Your task to perform on an android device: Go to Wikipedia Image 0: 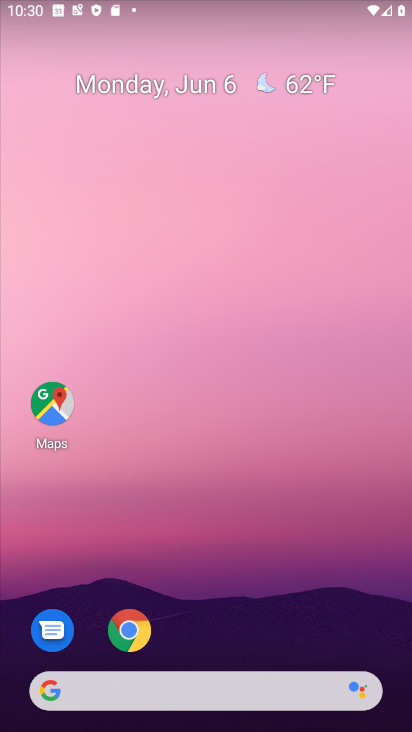
Step 0: drag from (369, 590) to (351, 83)
Your task to perform on an android device: Go to Wikipedia Image 1: 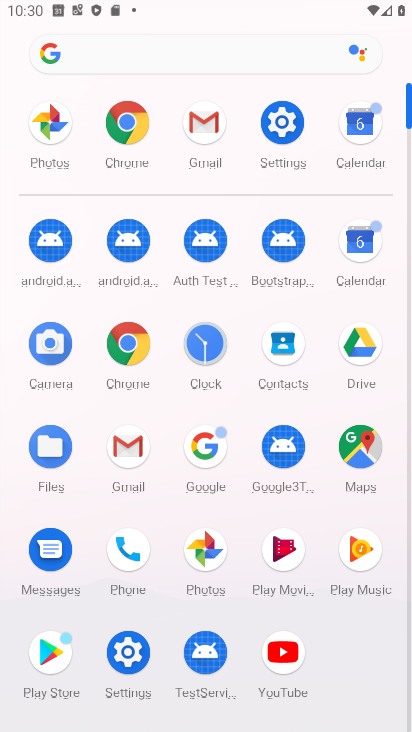
Step 1: click (137, 354)
Your task to perform on an android device: Go to Wikipedia Image 2: 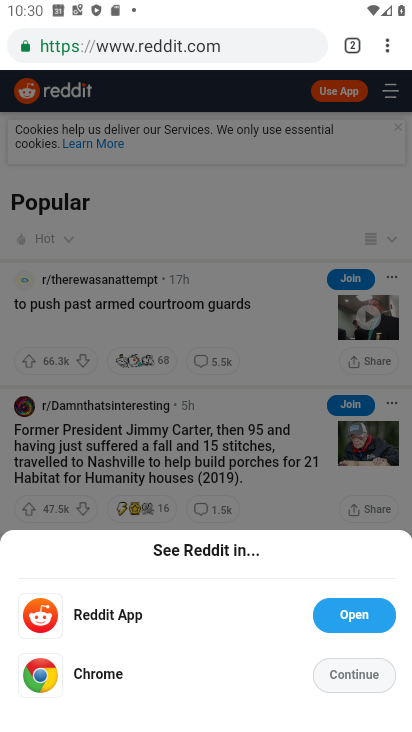
Step 2: click (261, 48)
Your task to perform on an android device: Go to Wikipedia Image 3: 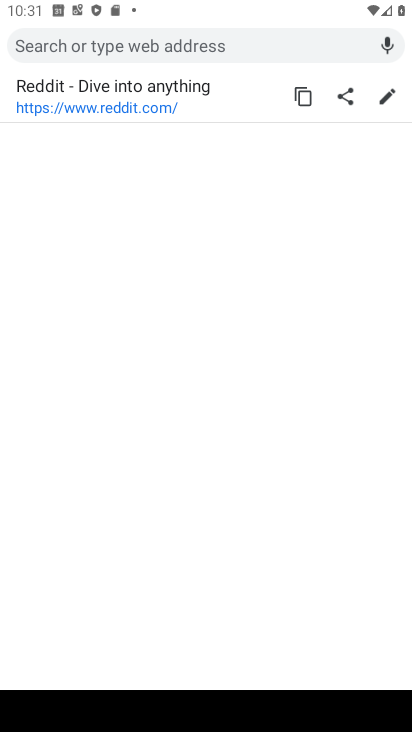
Step 3: type "wikipedia"
Your task to perform on an android device: Go to Wikipedia Image 4: 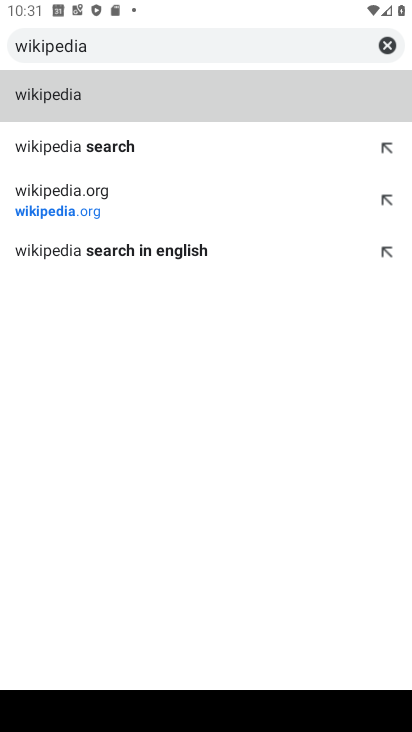
Step 4: click (142, 96)
Your task to perform on an android device: Go to Wikipedia Image 5: 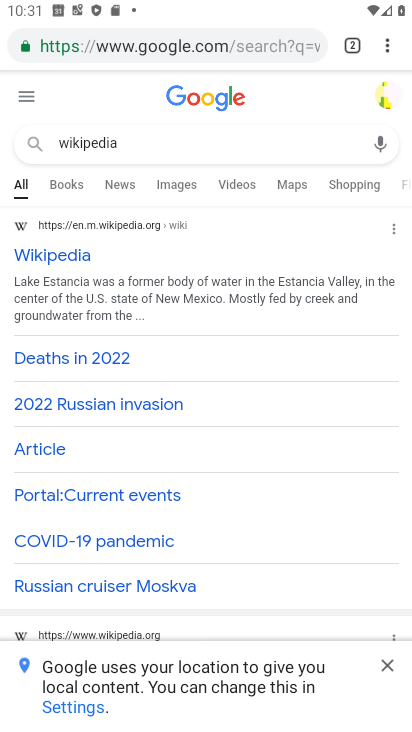
Step 5: click (82, 259)
Your task to perform on an android device: Go to Wikipedia Image 6: 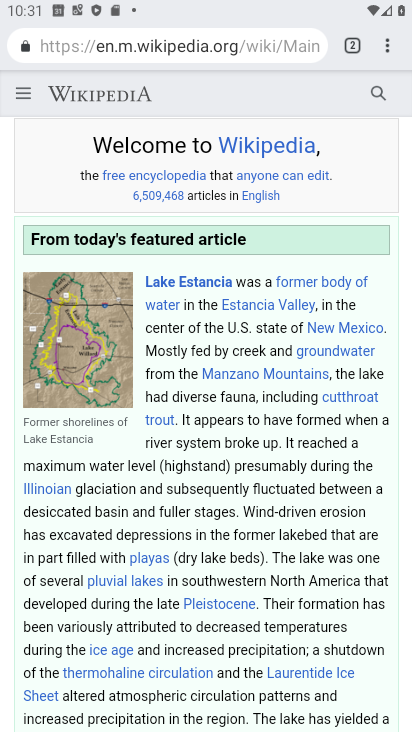
Step 6: task complete